Your task to perform on an android device: Show me popular videos on Youtube Image 0: 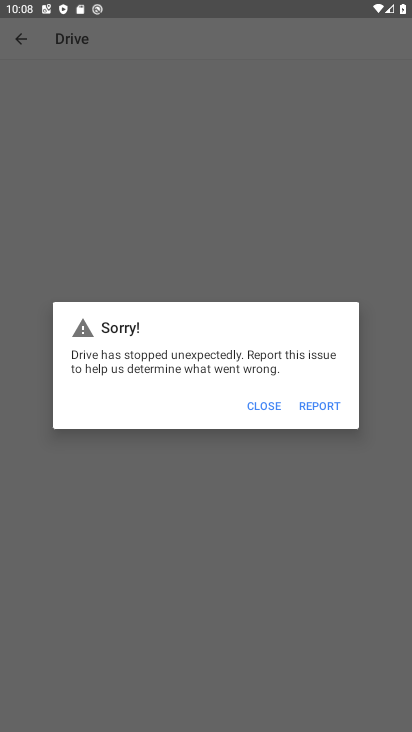
Step 0: press home button
Your task to perform on an android device: Show me popular videos on Youtube Image 1: 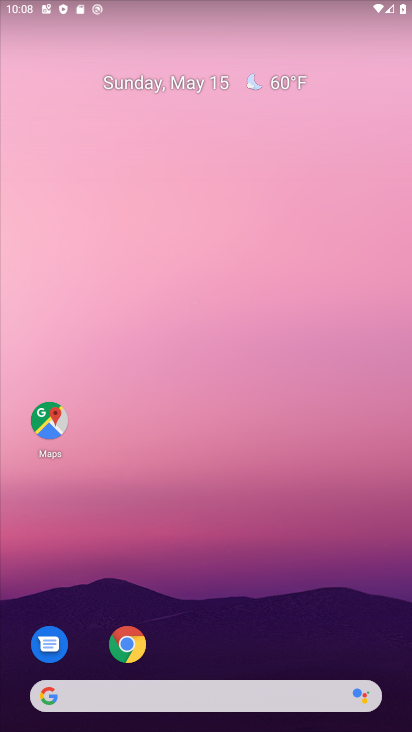
Step 1: drag from (129, 678) to (207, 94)
Your task to perform on an android device: Show me popular videos on Youtube Image 2: 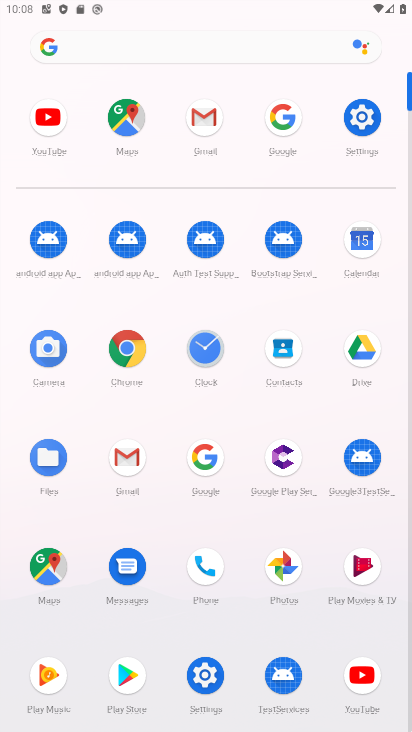
Step 2: click (360, 676)
Your task to perform on an android device: Show me popular videos on Youtube Image 3: 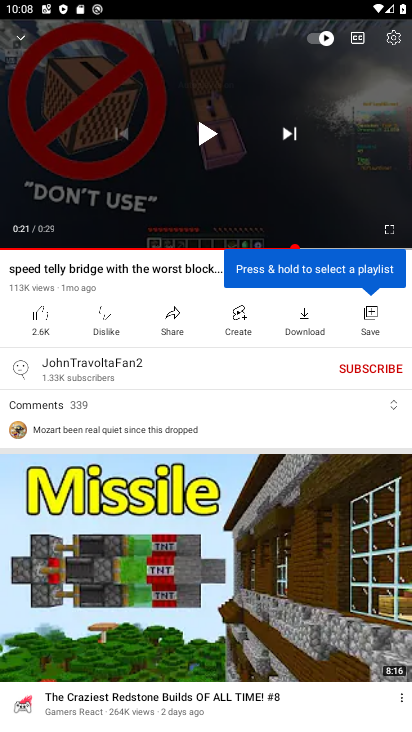
Step 3: press back button
Your task to perform on an android device: Show me popular videos on Youtube Image 4: 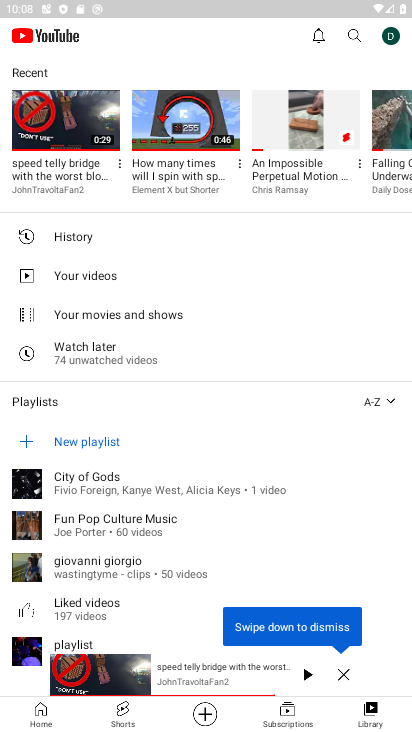
Step 4: click (42, 714)
Your task to perform on an android device: Show me popular videos on Youtube Image 5: 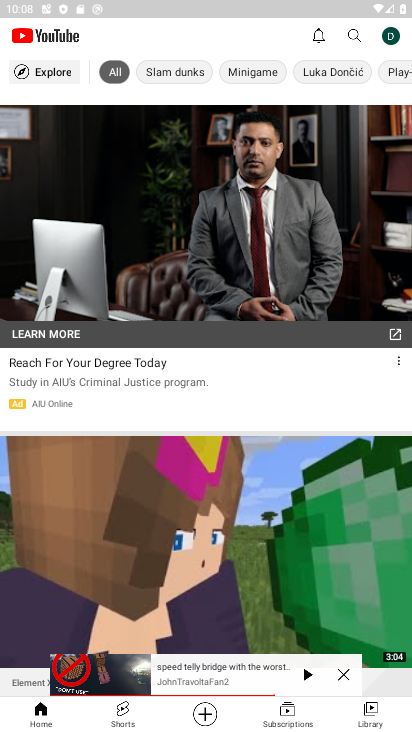
Step 5: drag from (245, 406) to (270, 153)
Your task to perform on an android device: Show me popular videos on Youtube Image 6: 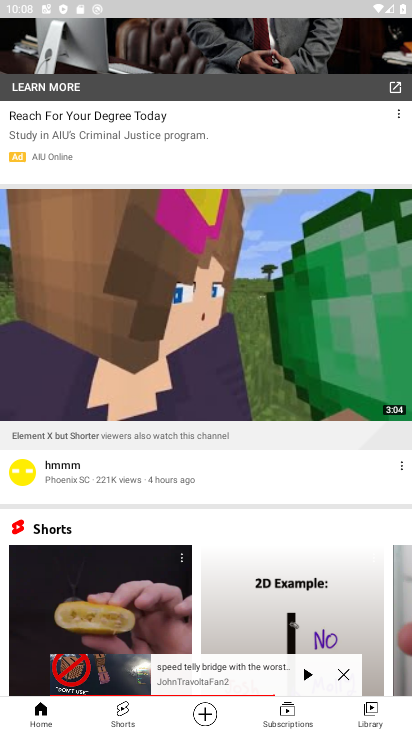
Step 6: click (334, 679)
Your task to perform on an android device: Show me popular videos on Youtube Image 7: 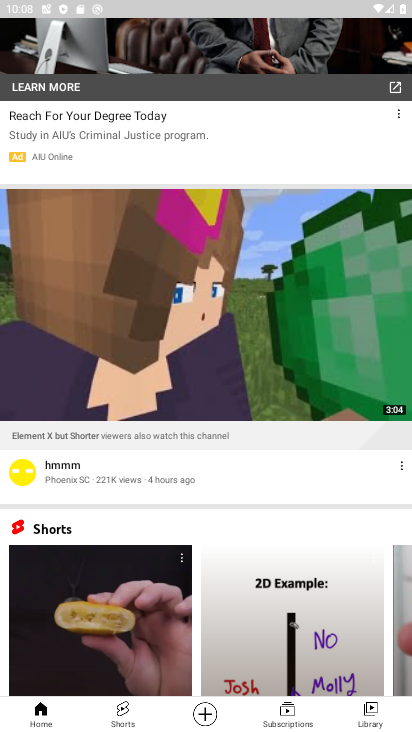
Step 7: task complete